Your task to perform on an android device: open chrome privacy settings Image 0: 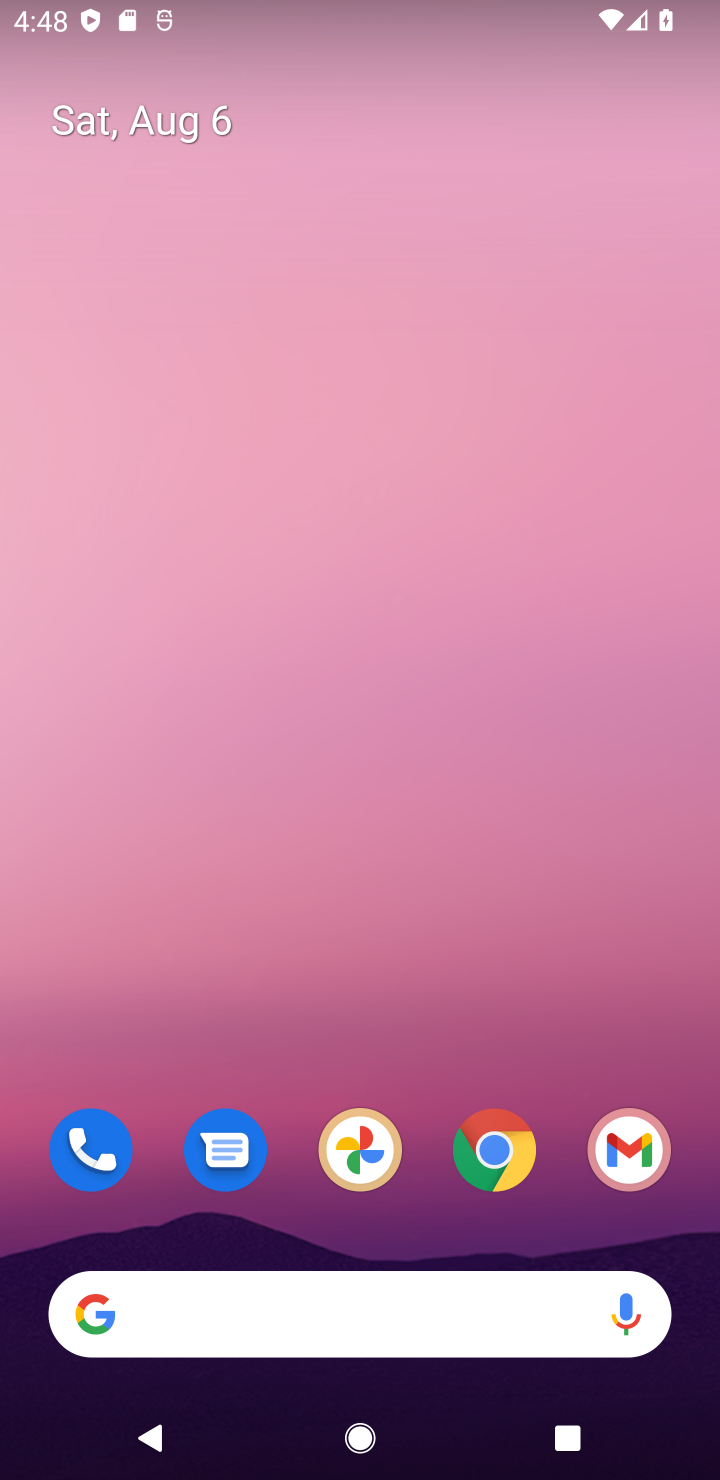
Step 0: click (514, 1148)
Your task to perform on an android device: open chrome privacy settings Image 1: 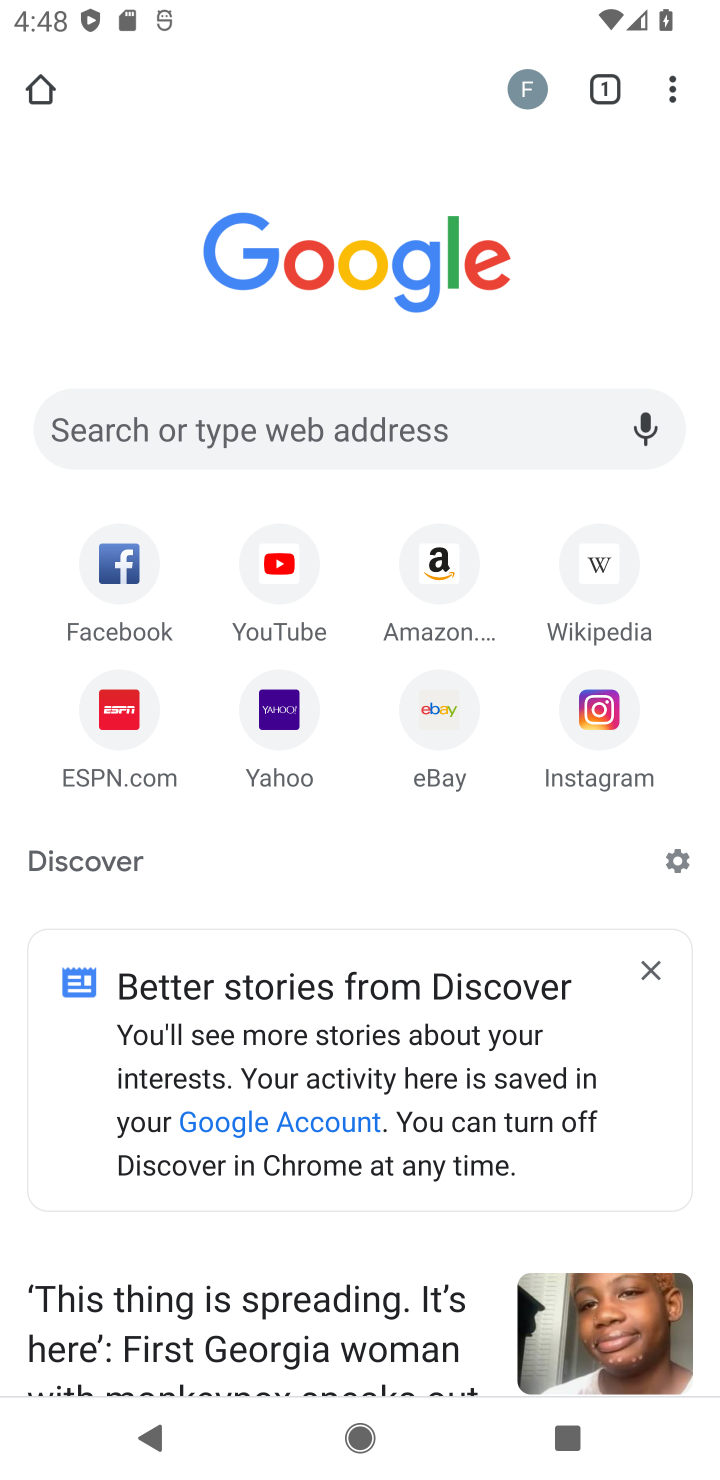
Step 1: click (663, 97)
Your task to perform on an android device: open chrome privacy settings Image 2: 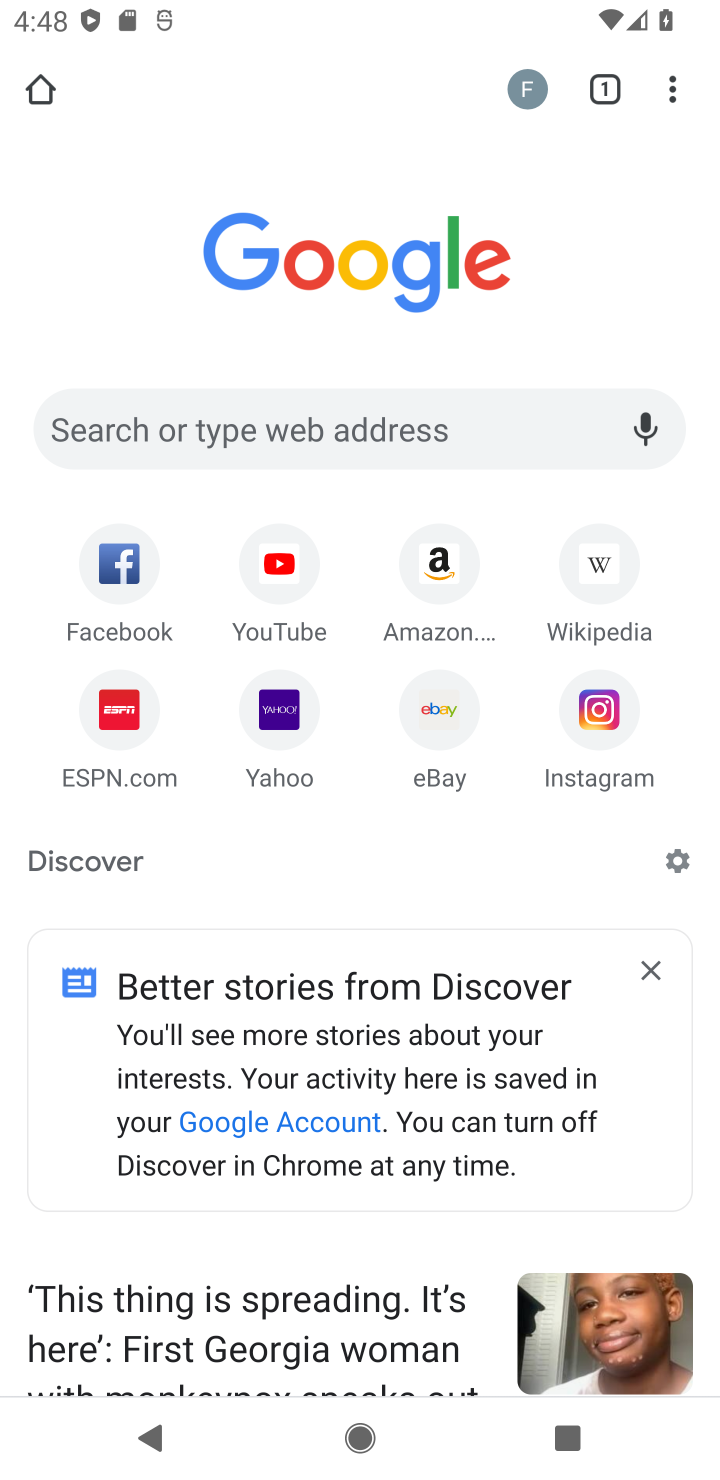
Step 2: click (670, 103)
Your task to perform on an android device: open chrome privacy settings Image 3: 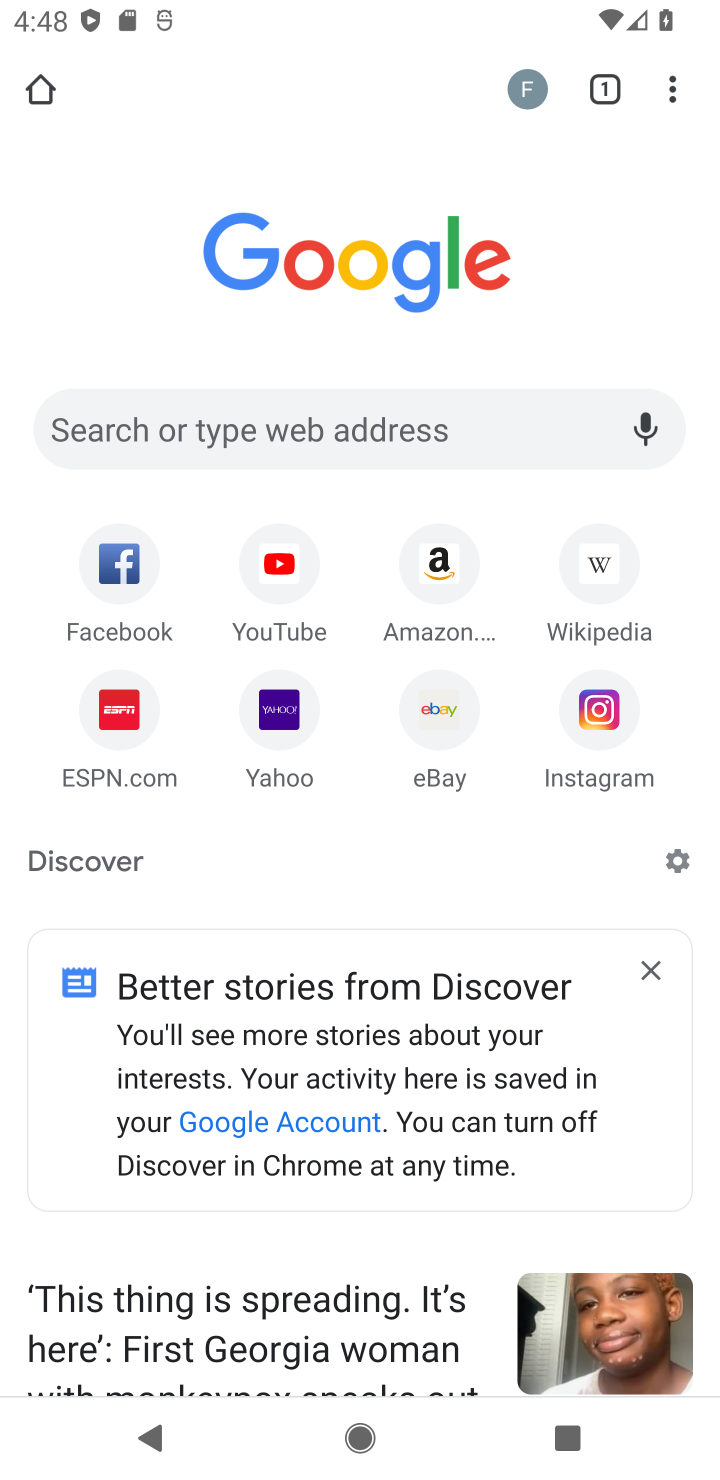
Step 3: click (704, 103)
Your task to perform on an android device: open chrome privacy settings Image 4: 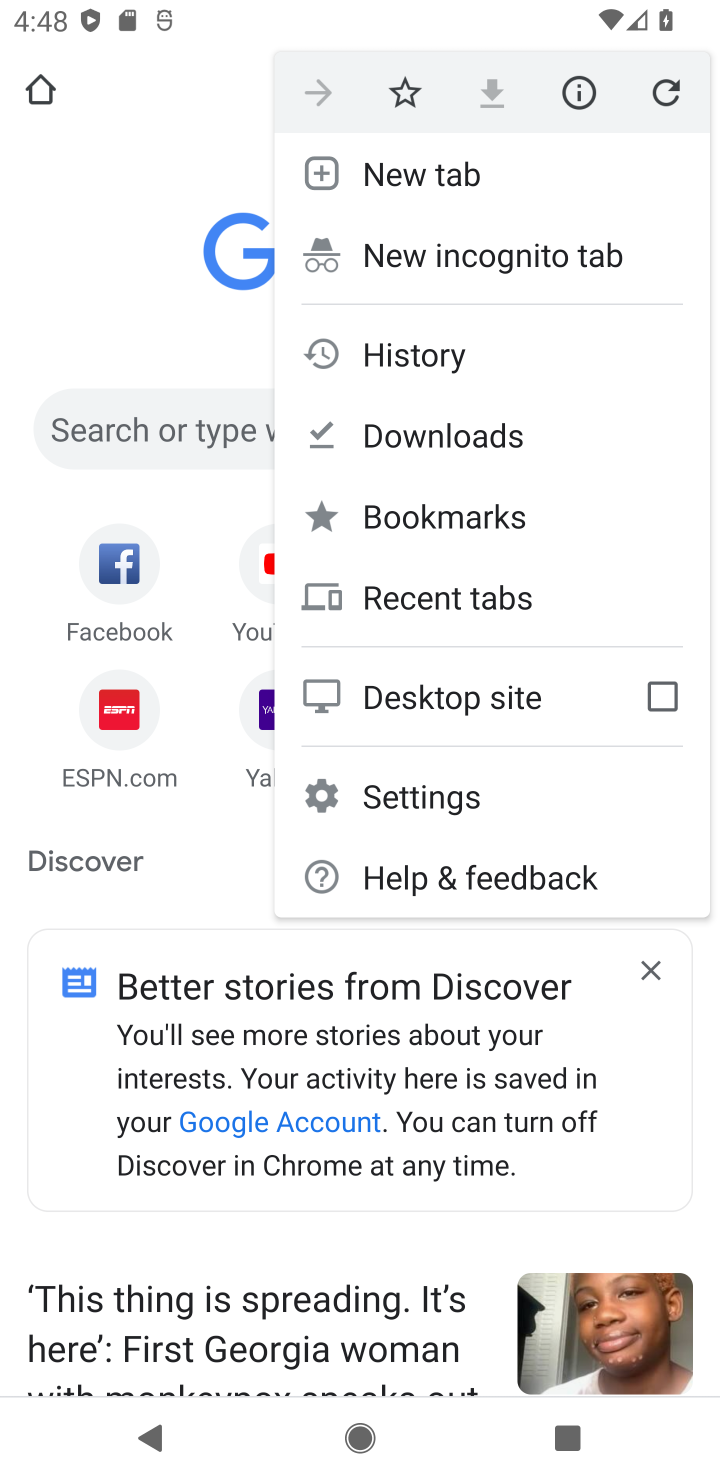
Step 4: click (479, 812)
Your task to perform on an android device: open chrome privacy settings Image 5: 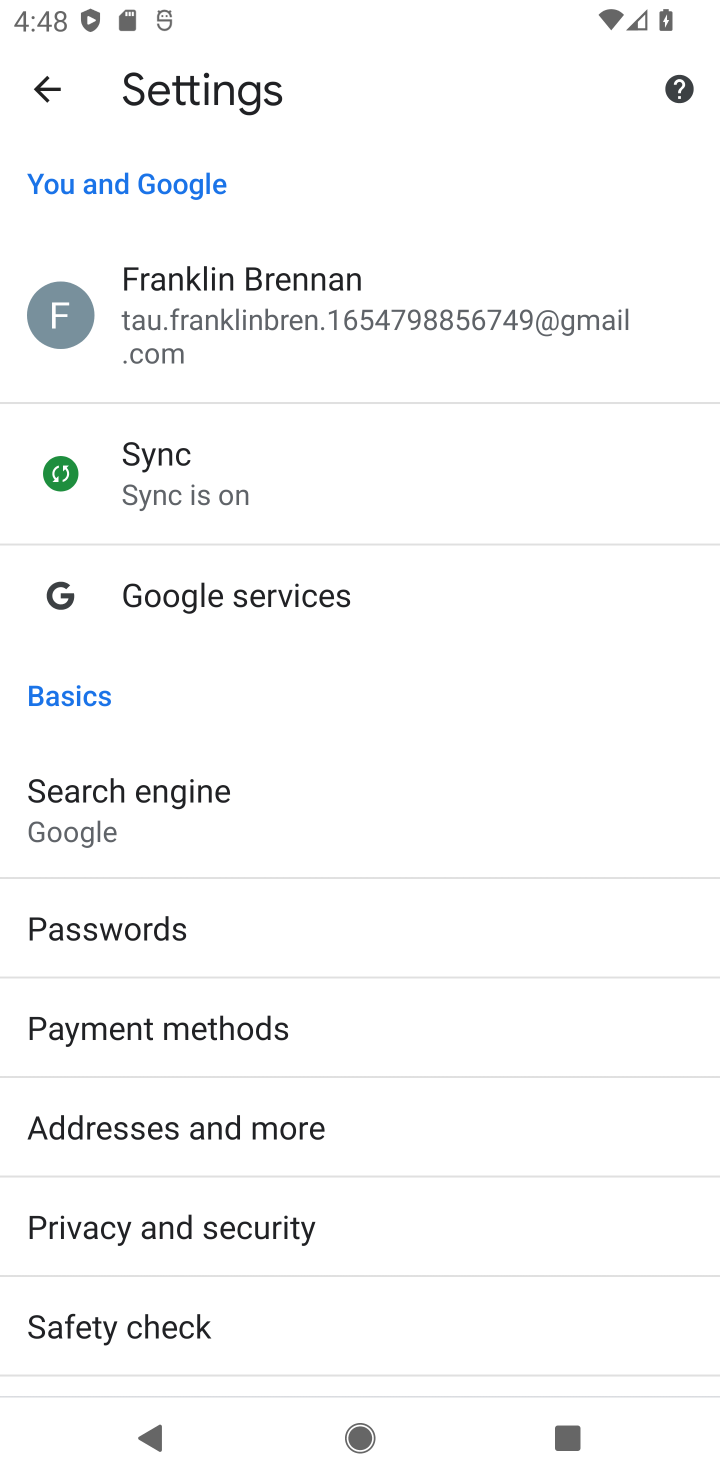
Step 5: drag from (241, 1297) to (285, 777)
Your task to perform on an android device: open chrome privacy settings Image 6: 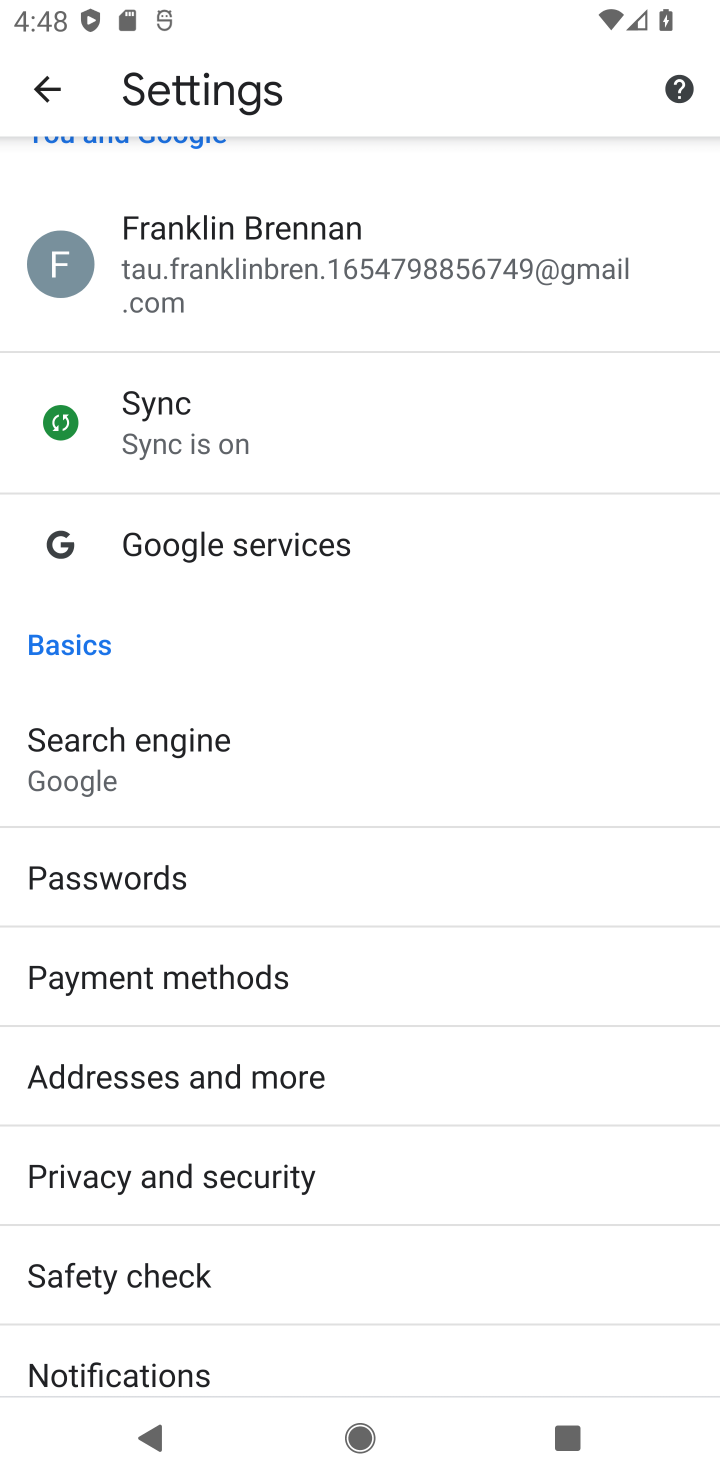
Step 6: drag from (276, 1246) to (287, 472)
Your task to perform on an android device: open chrome privacy settings Image 7: 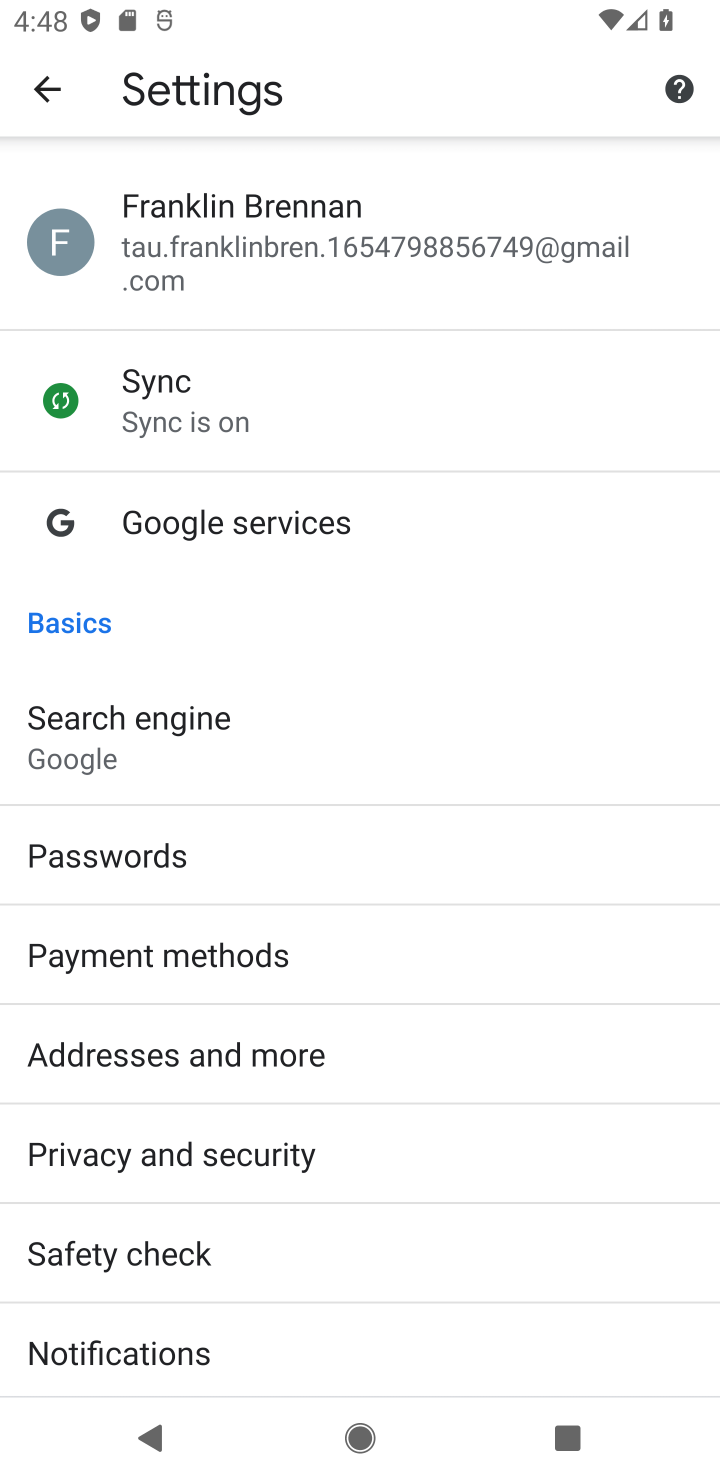
Step 7: drag from (183, 1252) to (169, 868)
Your task to perform on an android device: open chrome privacy settings Image 8: 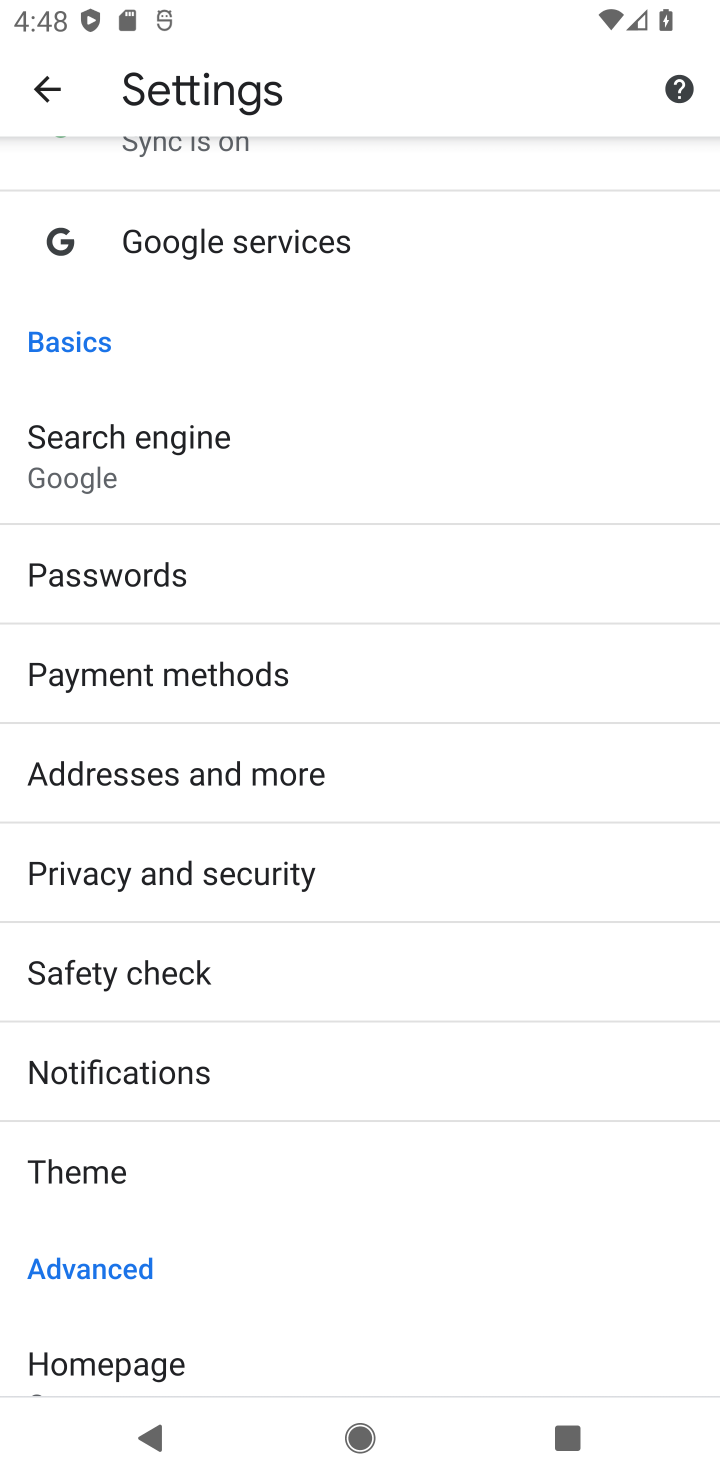
Step 8: drag from (336, 1246) to (386, 563)
Your task to perform on an android device: open chrome privacy settings Image 9: 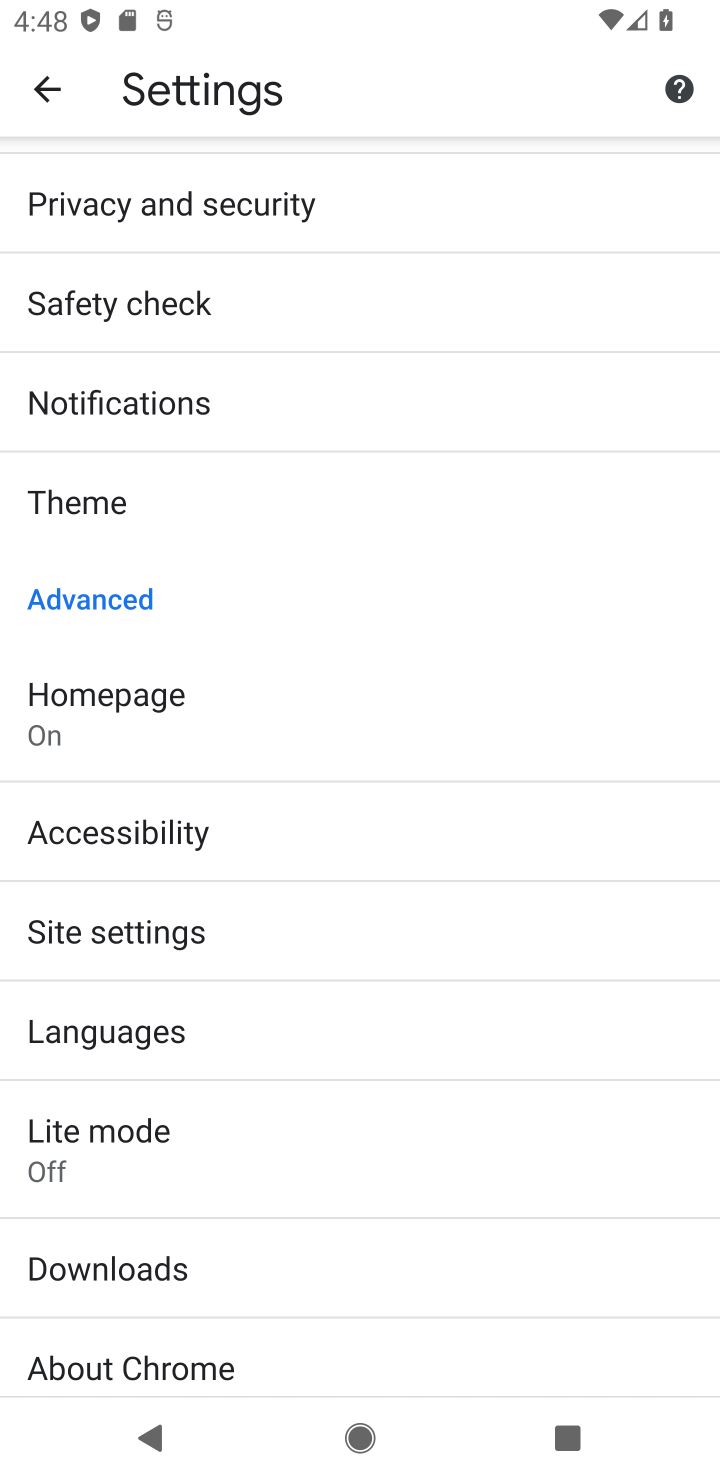
Step 9: click (165, 190)
Your task to perform on an android device: open chrome privacy settings Image 10: 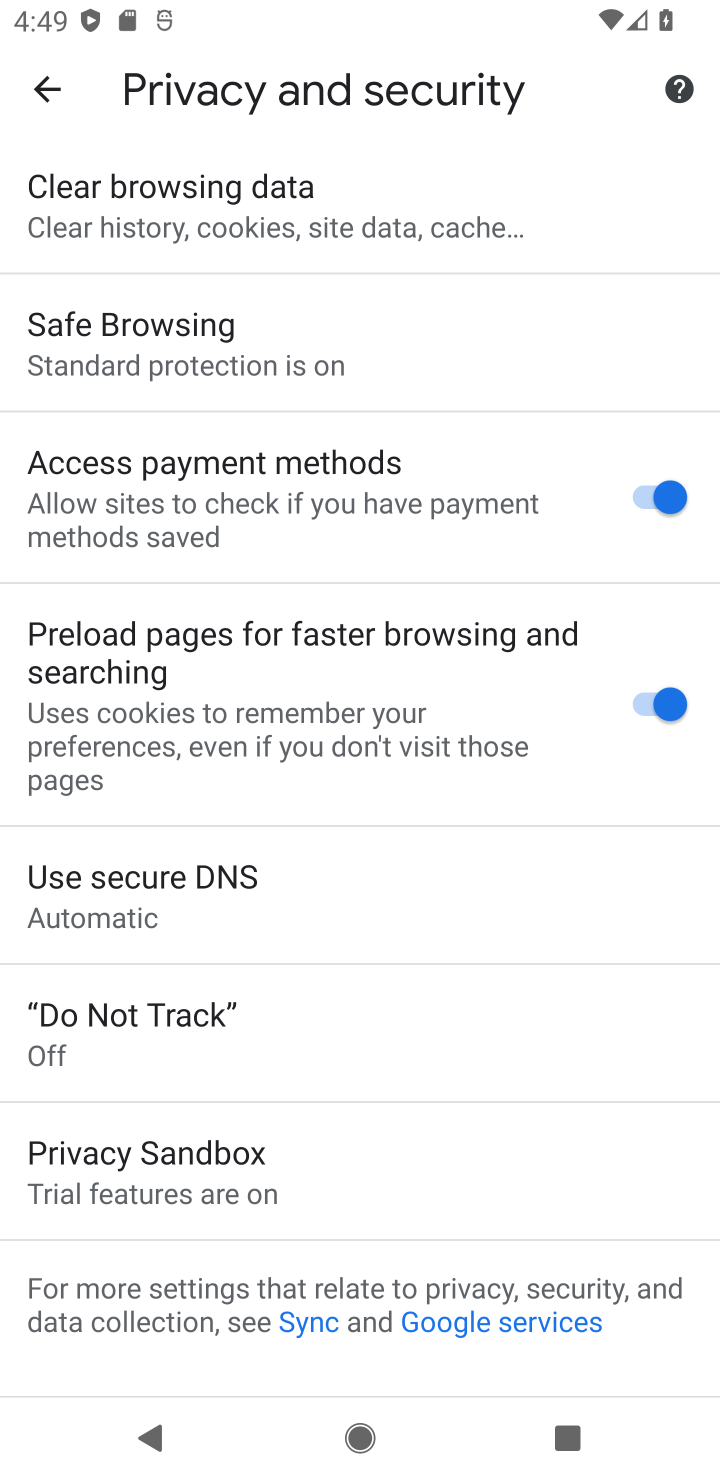
Step 10: task complete